Your task to perform on an android device: turn on sleep mode Image 0: 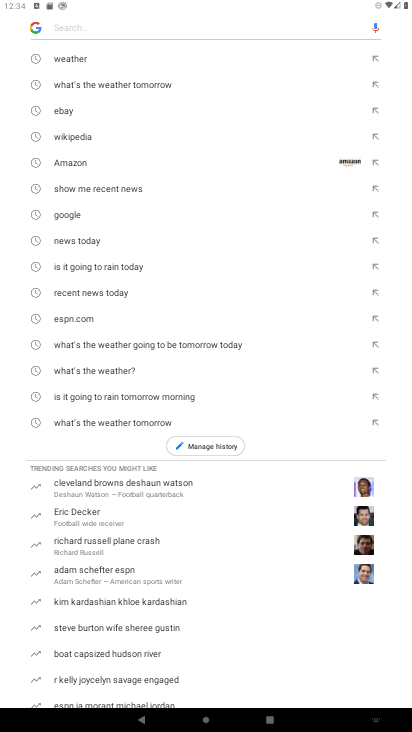
Step 0: press home button
Your task to perform on an android device: turn on sleep mode Image 1: 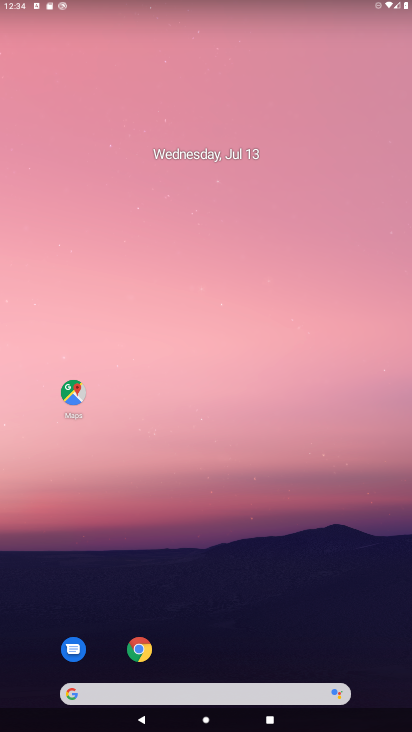
Step 1: drag from (363, 659) to (267, 85)
Your task to perform on an android device: turn on sleep mode Image 2: 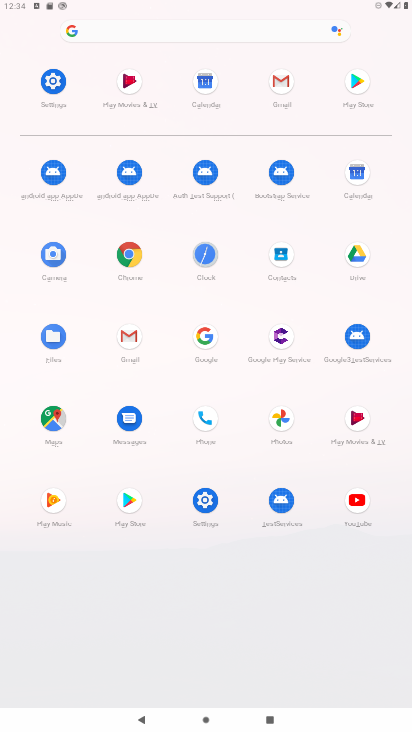
Step 2: click (207, 502)
Your task to perform on an android device: turn on sleep mode Image 3: 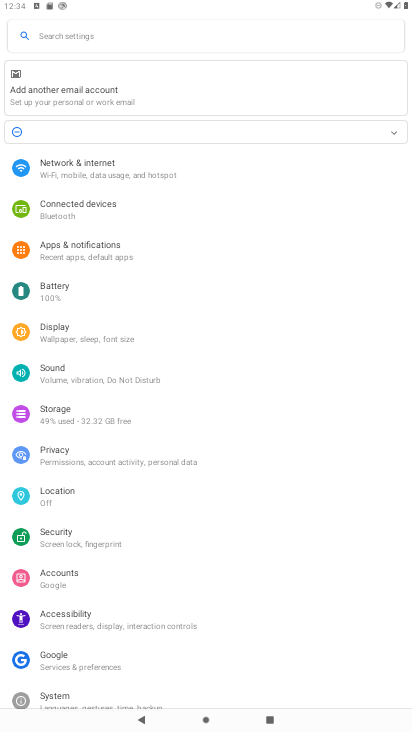
Step 3: click (63, 337)
Your task to perform on an android device: turn on sleep mode Image 4: 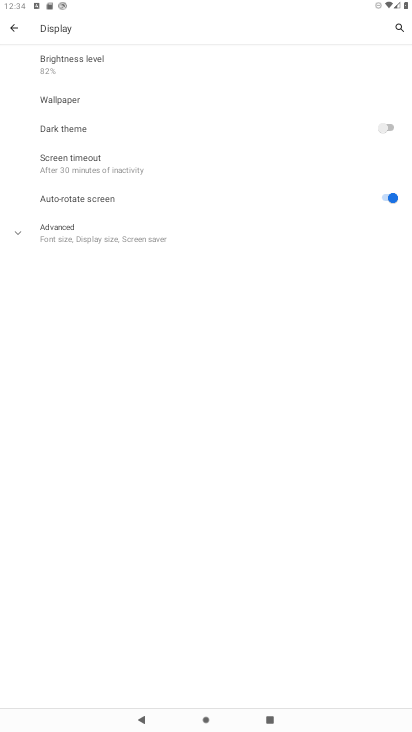
Step 4: click (15, 233)
Your task to perform on an android device: turn on sleep mode Image 5: 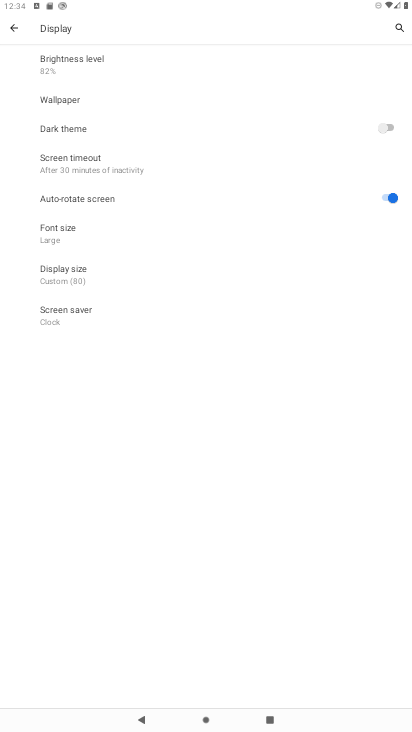
Step 5: task complete